Your task to perform on an android device: Open network settings Image 0: 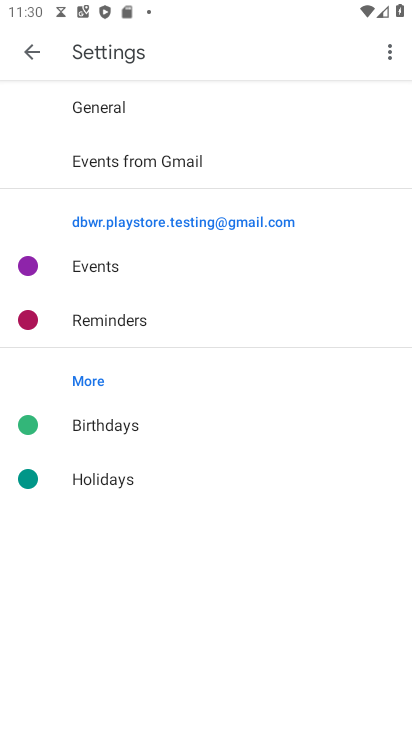
Step 0: press home button
Your task to perform on an android device: Open network settings Image 1: 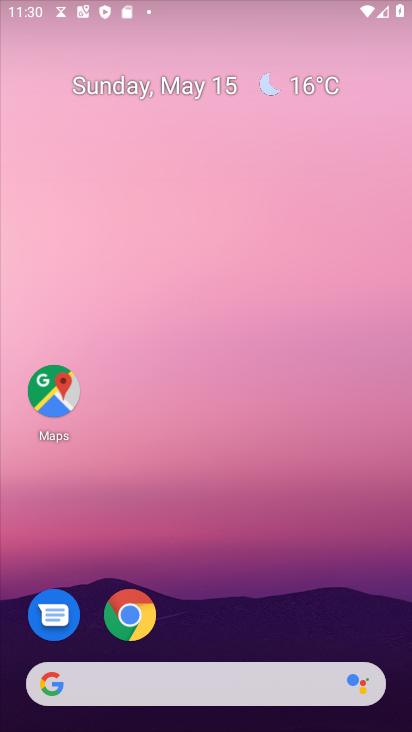
Step 1: drag from (239, 611) to (280, 0)
Your task to perform on an android device: Open network settings Image 2: 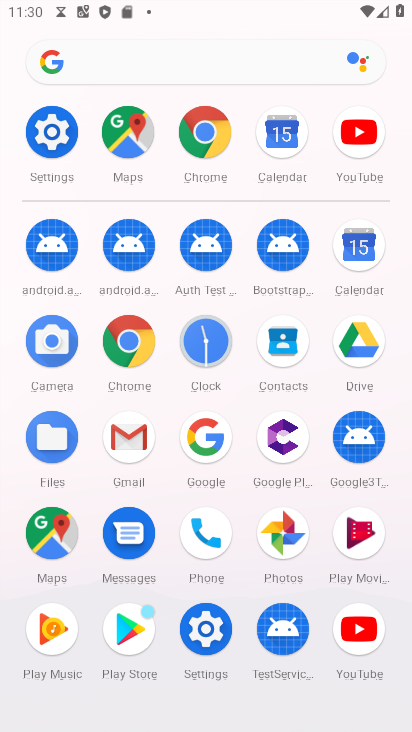
Step 2: click (59, 140)
Your task to perform on an android device: Open network settings Image 3: 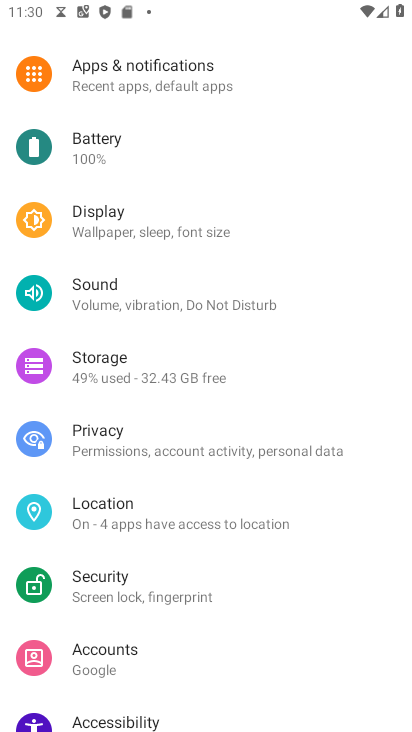
Step 3: drag from (69, 149) to (112, 449)
Your task to perform on an android device: Open network settings Image 4: 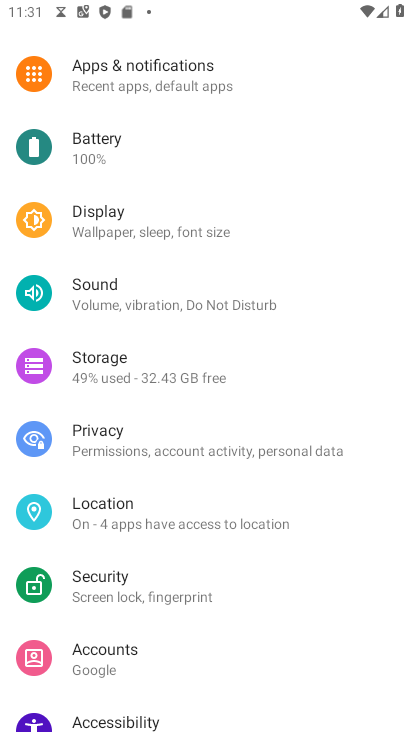
Step 4: drag from (115, 90) to (91, 531)
Your task to perform on an android device: Open network settings Image 5: 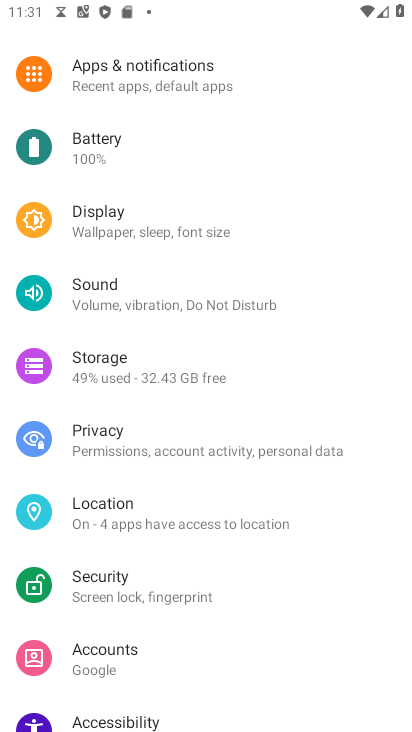
Step 5: drag from (151, 211) to (149, 577)
Your task to perform on an android device: Open network settings Image 6: 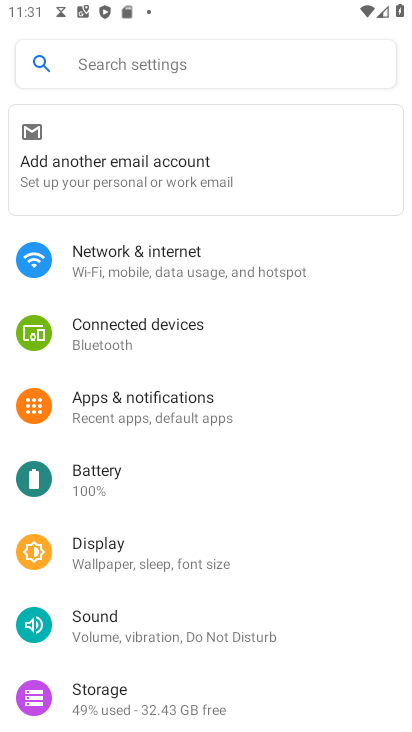
Step 6: click (113, 252)
Your task to perform on an android device: Open network settings Image 7: 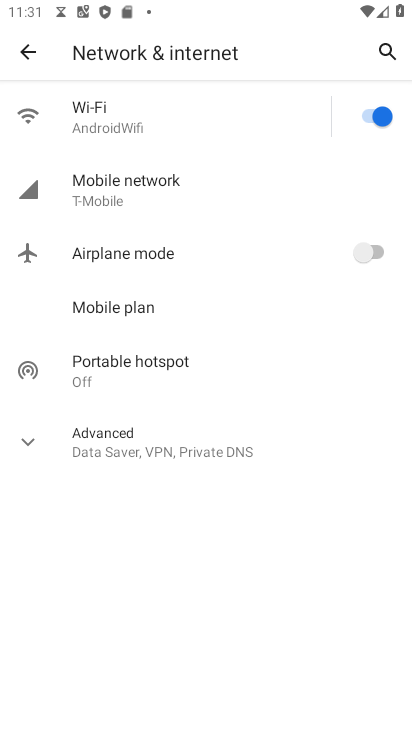
Step 7: task complete